Your task to perform on an android device: toggle notification dots Image 0: 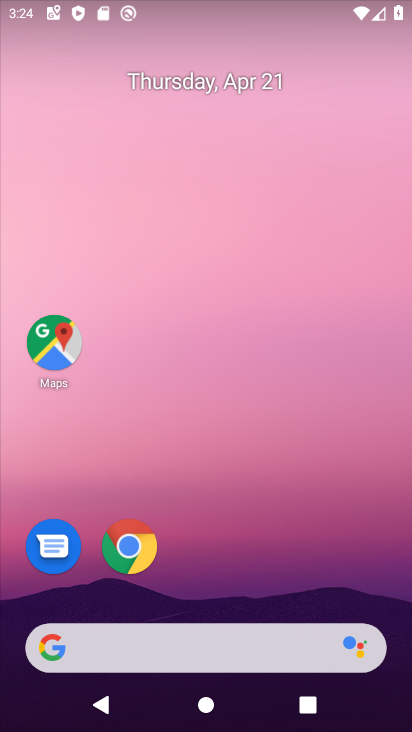
Step 0: drag from (186, 603) to (321, 113)
Your task to perform on an android device: toggle notification dots Image 1: 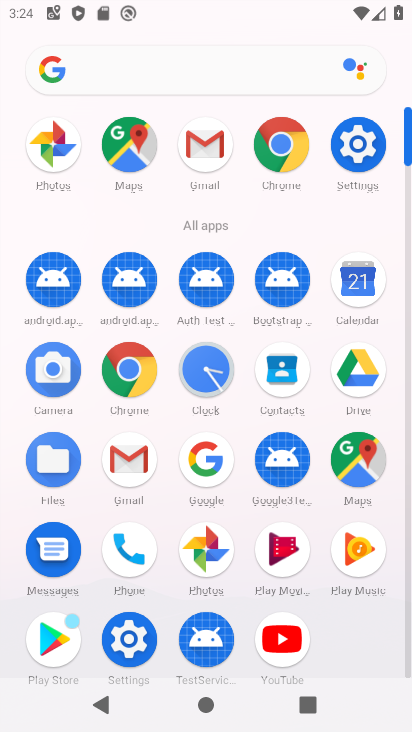
Step 1: click (139, 650)
Your task to perform on an android device: toggle notification dots Image 2: 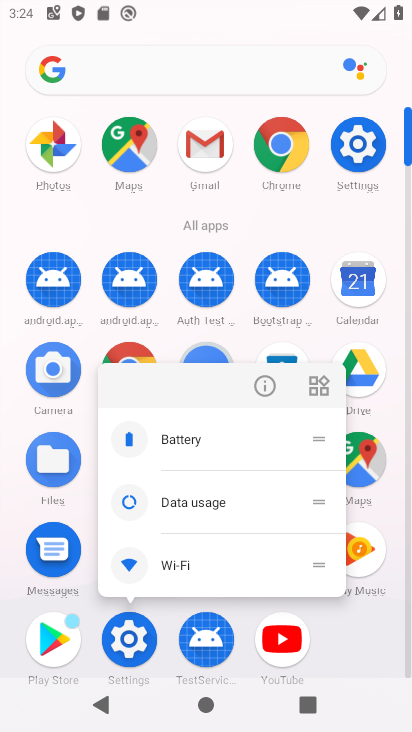
Step 2: click (116, 634)
Your task to perform on an android device: toggle notification dots Image 3: 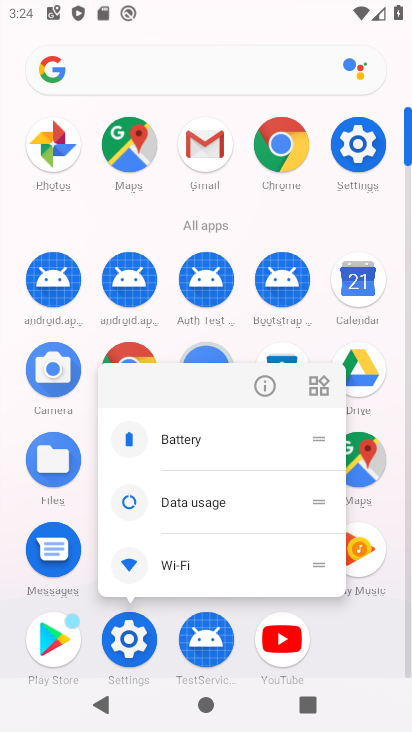
Step 3: click (126, 645)
Your task to perform on an android device: toggle notification dots Image 4: 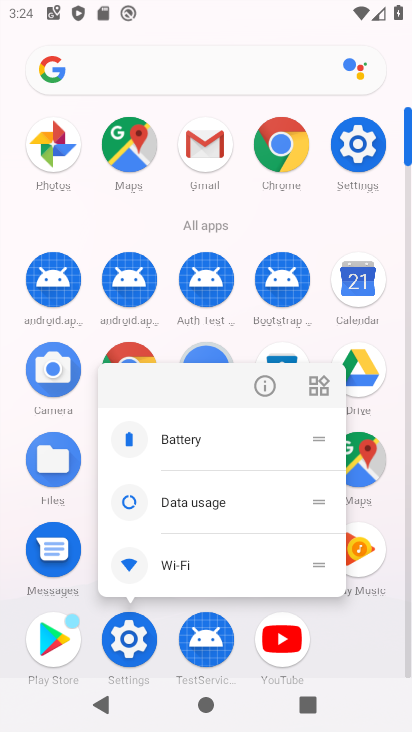
Step 4: click (129, 640)
Your task to perform on an android device: toggle notification dots Image 5: 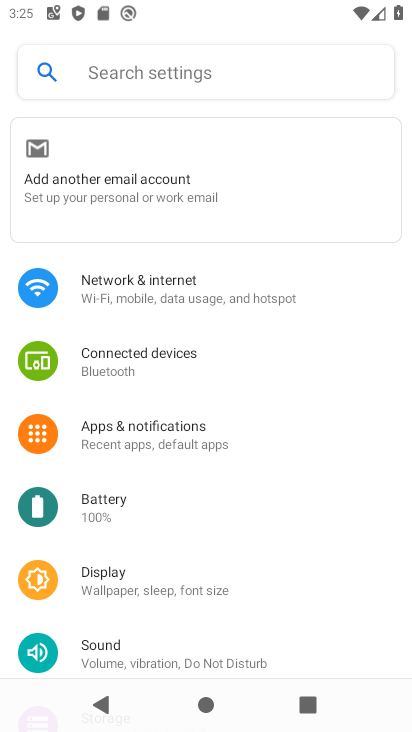
Step 5: click (210, 444)
Your task to perform on an android device: toggle notification dots Image 6: 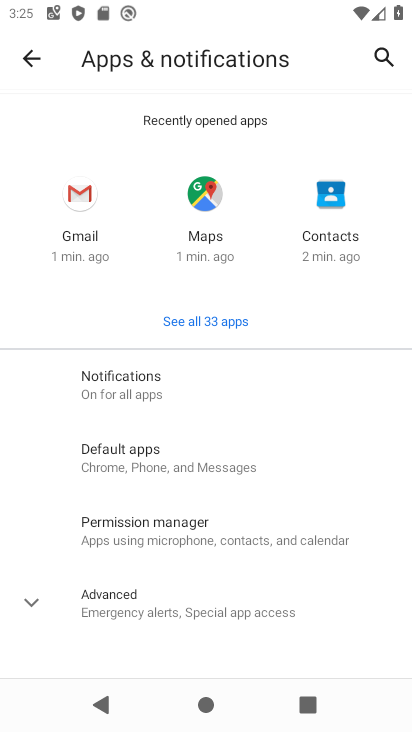
Step 6: click (258, 396)
Your task to perform on an android device: toggle notification dots Image 7: 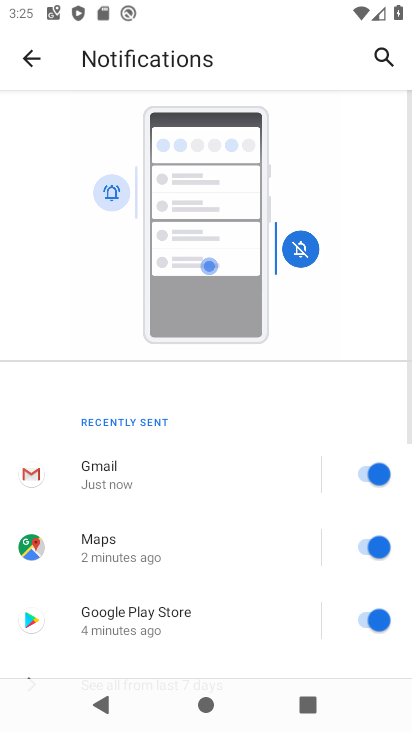
Step 7: drag from (201, 591) to (330, 246)
Your task to perform on an android device: toggle notification dots Image 8: 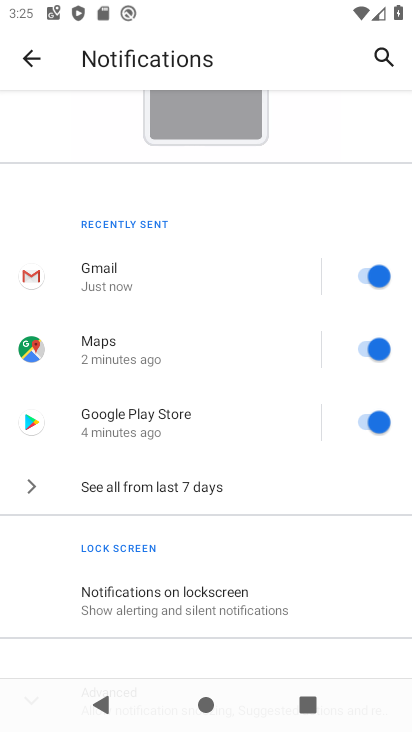
Step 8: drag from (229, 628) to (322, 291)
Your task to perform on an android device: toggle notification dots Image 9: 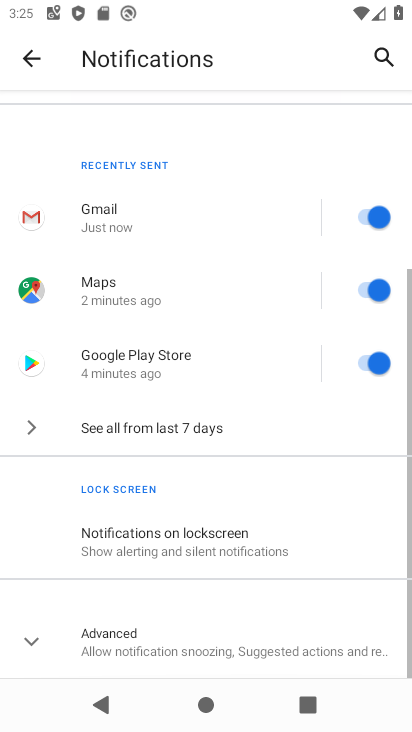
Step 9: click (292, 653)
Your task to perform on an android device: toggle notification dots Image 10: 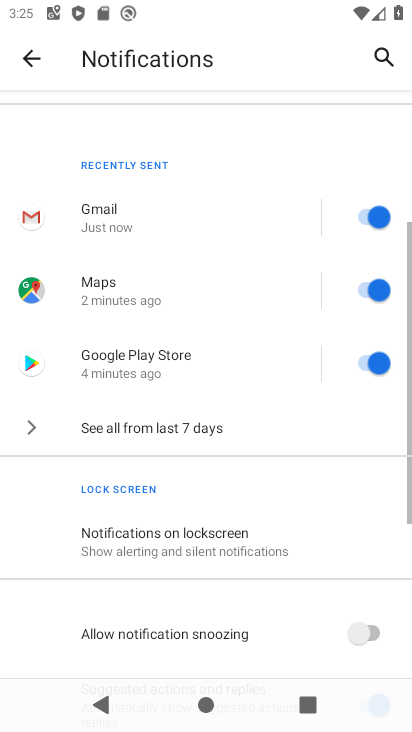
Step 10: drag from (213, 641) to (301, 246)
Your task to perform on an android device: toggle notification dots Image 11: 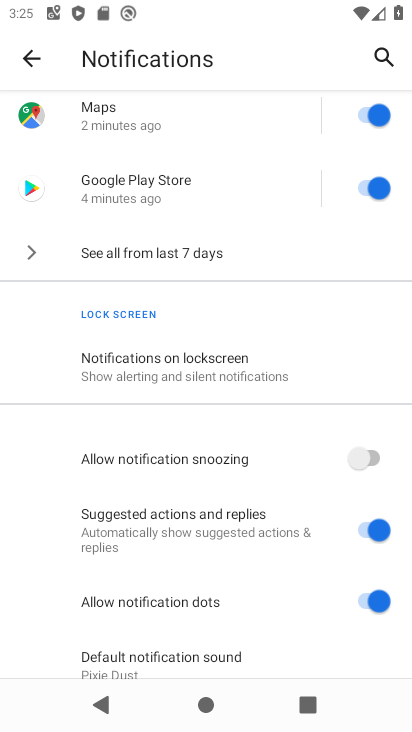
Step 11: click (358, 594)
Your task to perform on an android device: toggle notification dots Image 12: 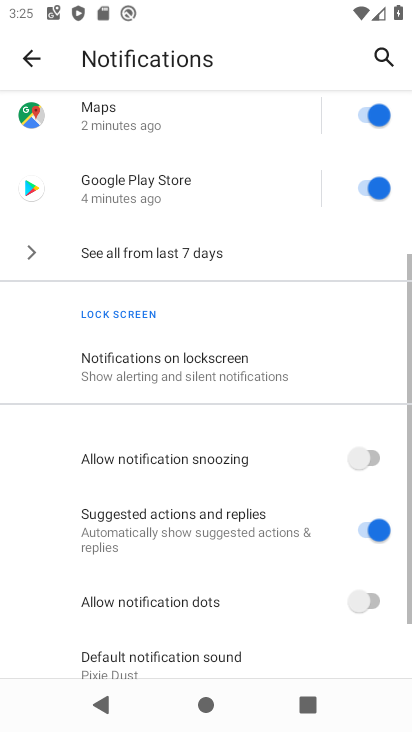
Step 12: task complete